Your task to perform on an android device: find photos in the google photos app Image 0: 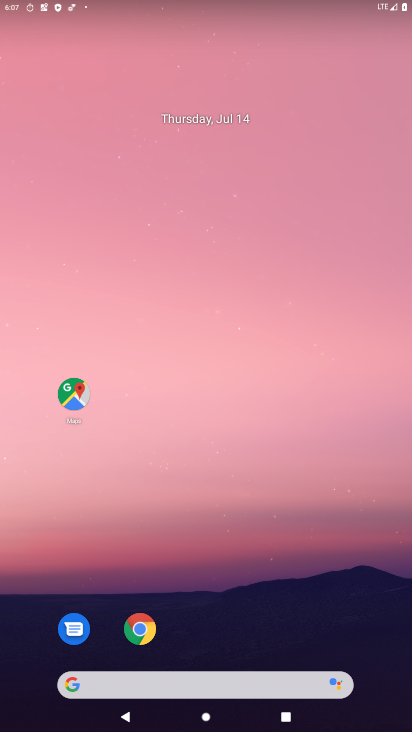
Step 0: drag from (253, 683) to (296, 11)
Your task to perform on an android device: find photos in the google photos app Image 1: 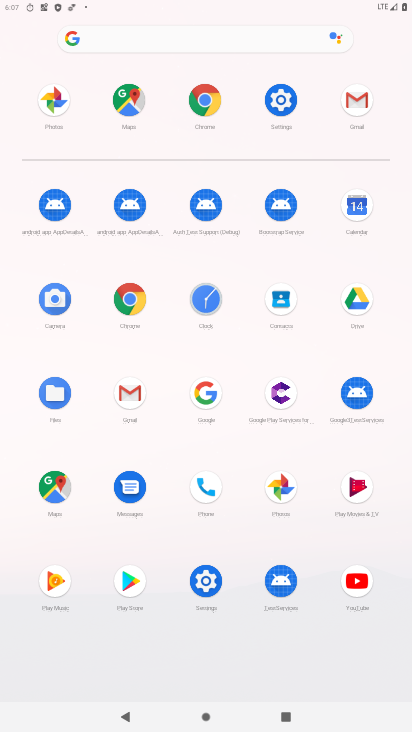
Step 1: click (285, 492)
Your task to perform on an android device: find photos in the google photos app Image 2: 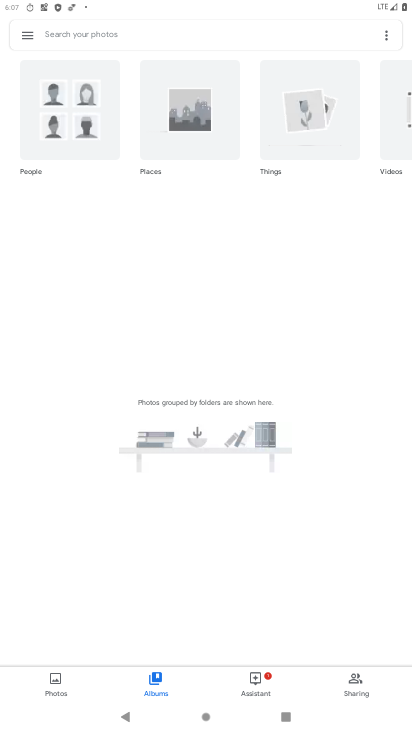
Step 2: click (38, 681)
Your task to perform on an android device: find photos in the google photos app Image 3: 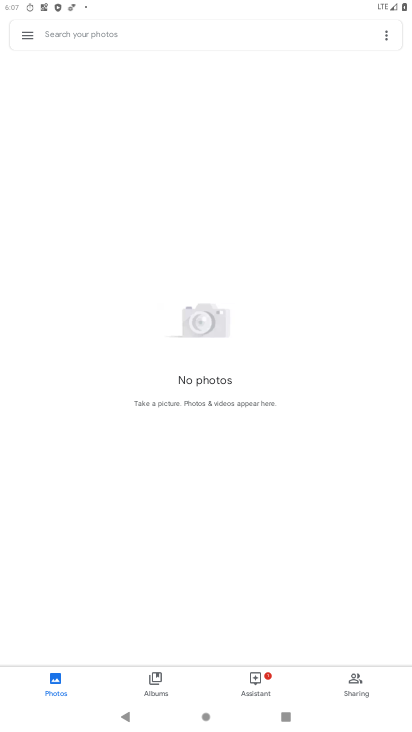
Step 3: task complete